Your task to perform on an android device: turn off improve location accuracy Image 0: 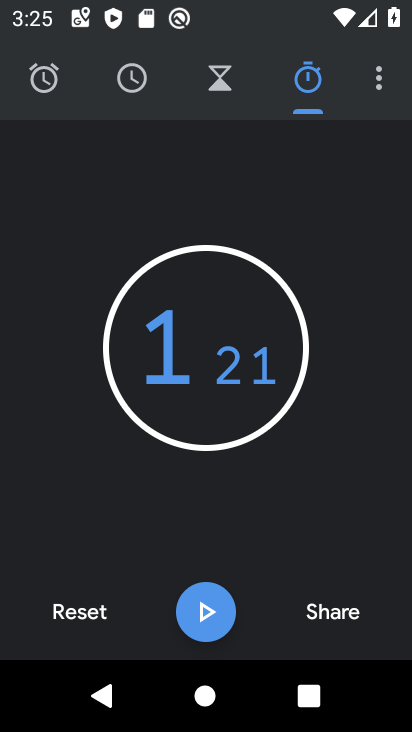
Step 0: press home button
Your task to perform on an android device: turn off improve location accuracy Image 1: 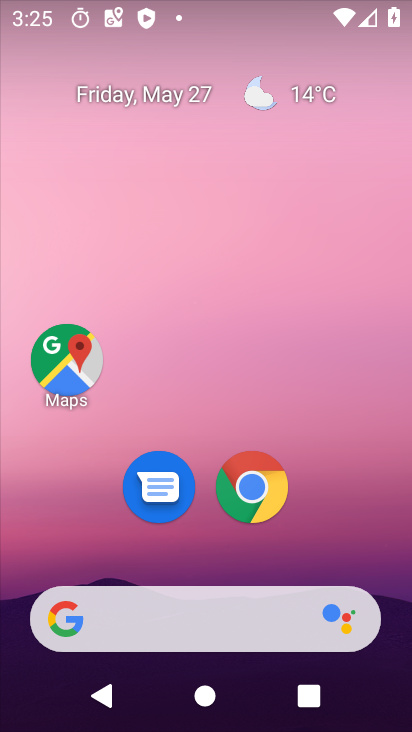
Step 1: drag from (330, 480) to (147, 145)
Your task to perform on an android device: turn off improve location accuracy Image 2: 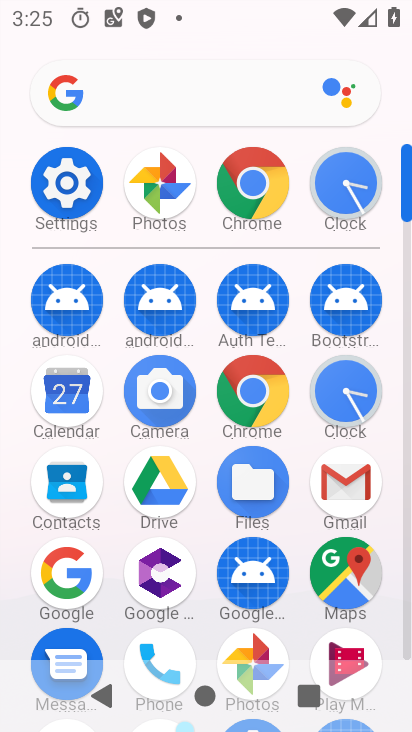
Step 2: click (54, 193)
Your task to perform on an android device: turn off improve location accuracy Image 3: 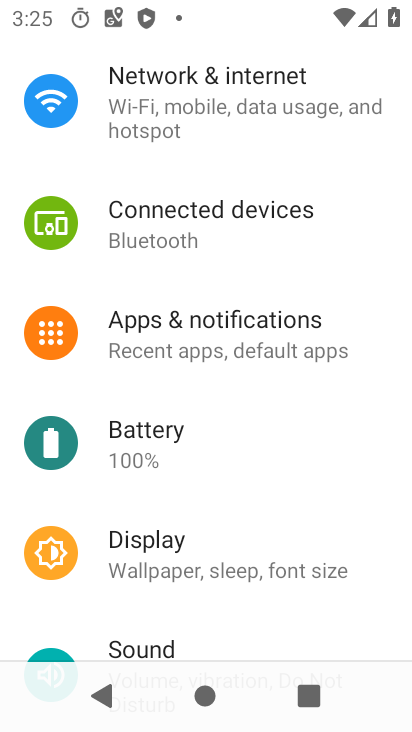
Step 3: drag from (164, 368) to (76, 124)
Your task to perform on an android device: turn off improve location accuracy Image 4: 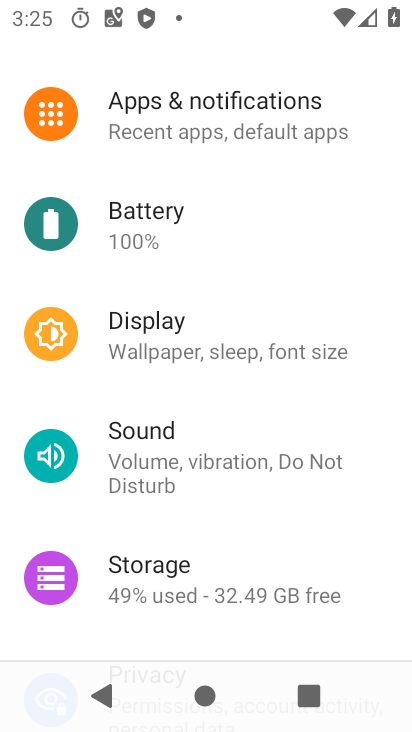
Step 4: drag from (236, 501) to (146, 43)
Your task to perform on an android device: turn off improve location accuracy Image 5: 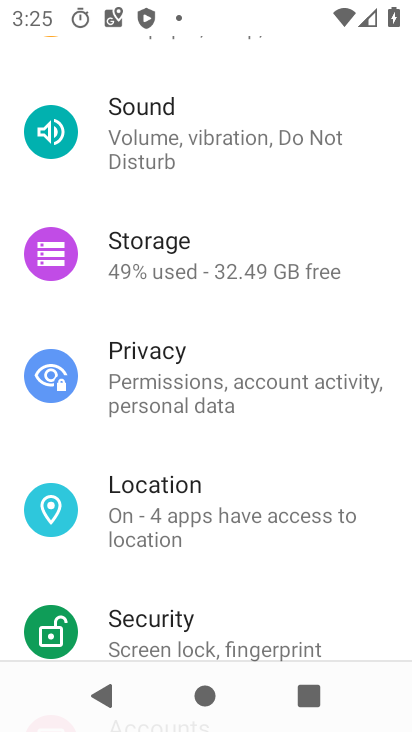
Step 5: click (235, 533)
Your task to perform on an android device: turn off improve location accuracy Image 6: 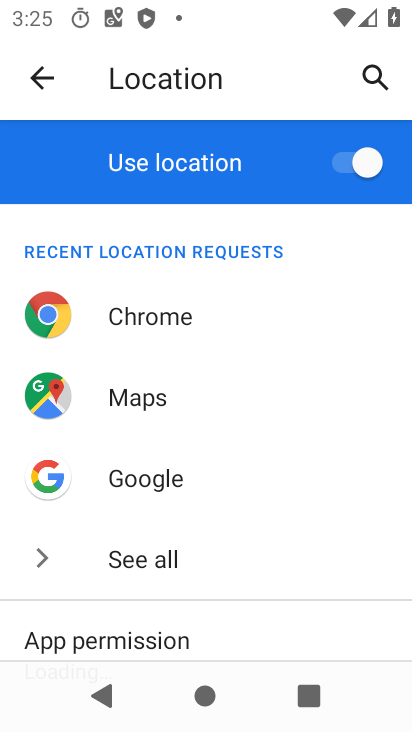
Step 6: drag from (202, 457) to (103, 170)
Your task to perform on an android device: turn off improve location accuracy Image 7: 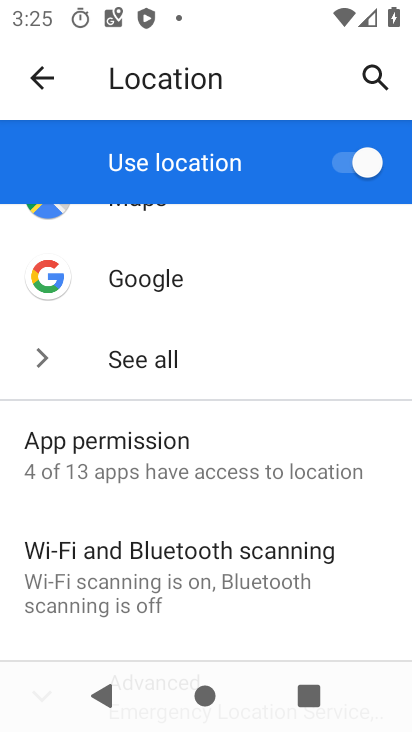
Step 7: drag from (228, 572) to (85, 153)
Your task to perform on an android device: turn off improve location accuracy Image 8: 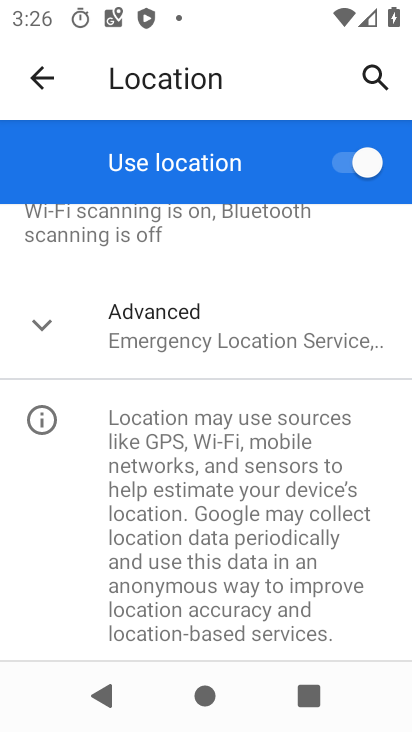
Step 8: click (141, 311)
Your task to perform on an android device: turn off improve location accuracy Image 9: 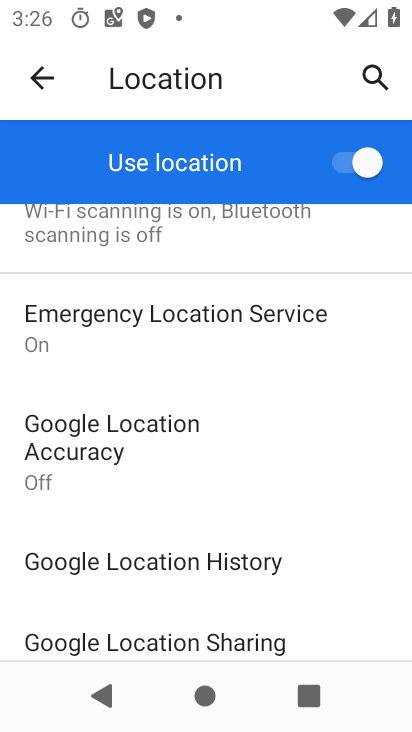
Step 9: click (108, 434)
Your task to perform on an android device: turn off improve location accuracy Image 10: 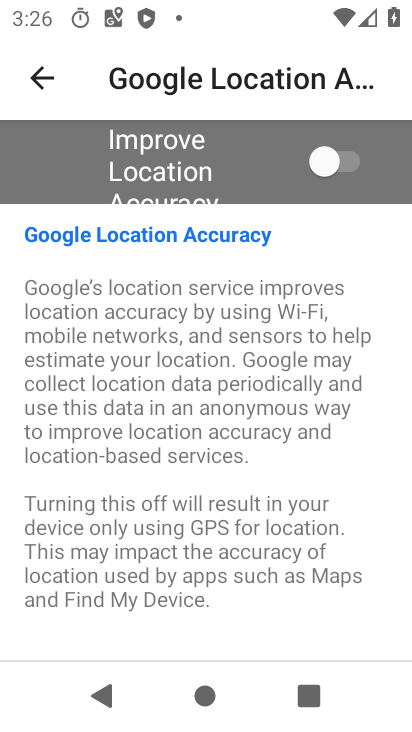
Step 10: task complete